Your task to perform on an android device: turn off improve location accuracy Image 0: 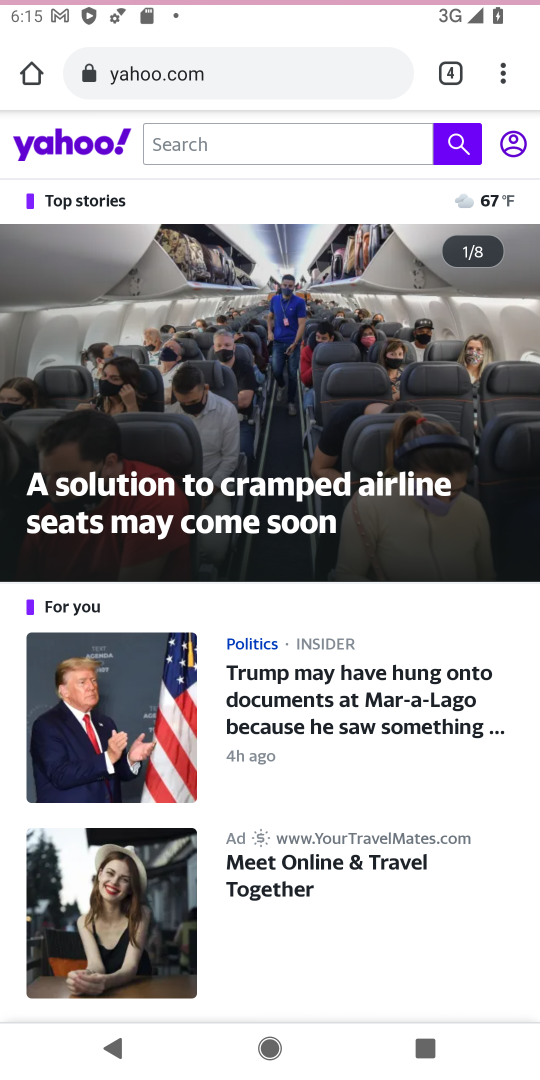
Step 0: press home button
Your task to perform on an android device: turn off improve location accuracy Image 1: 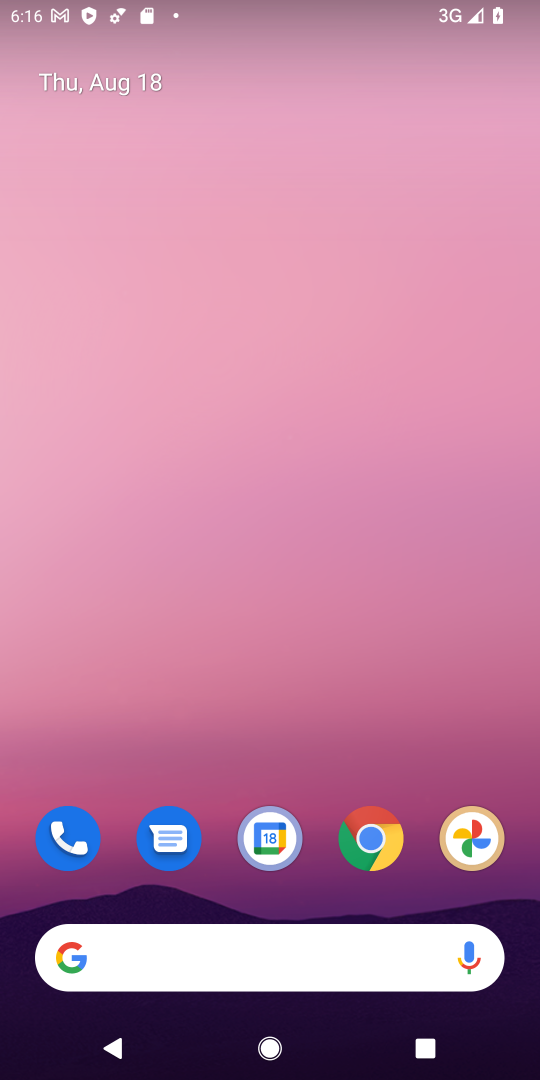
Step 1: drag from (342, 838) to (336, 276)
Your task to perform on an android device: turn off improve location accuracy Image 2: 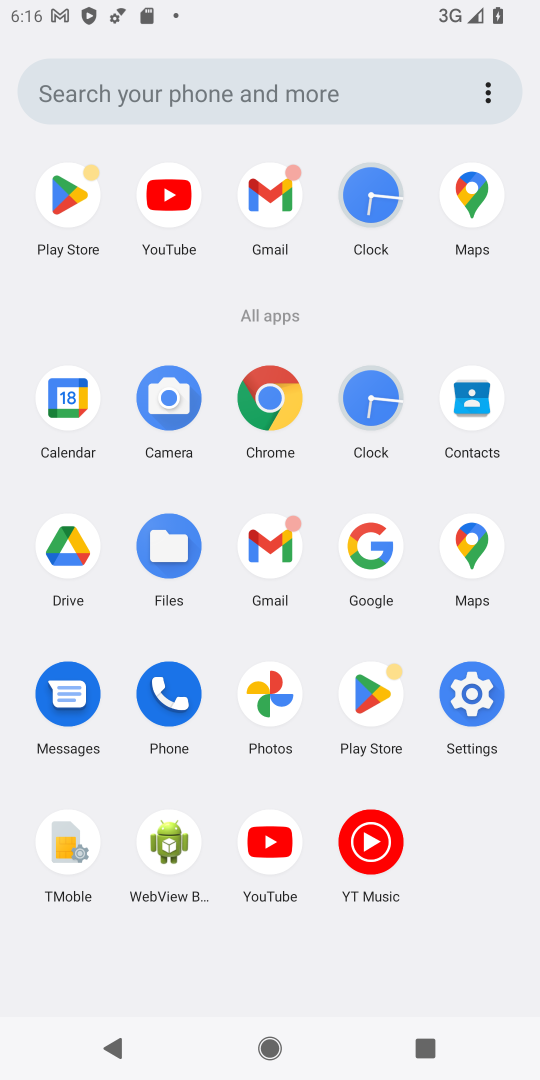
Step 2: click (466, 715)
Your task to perform on an android device: turn off improve location accuracy Image 3: 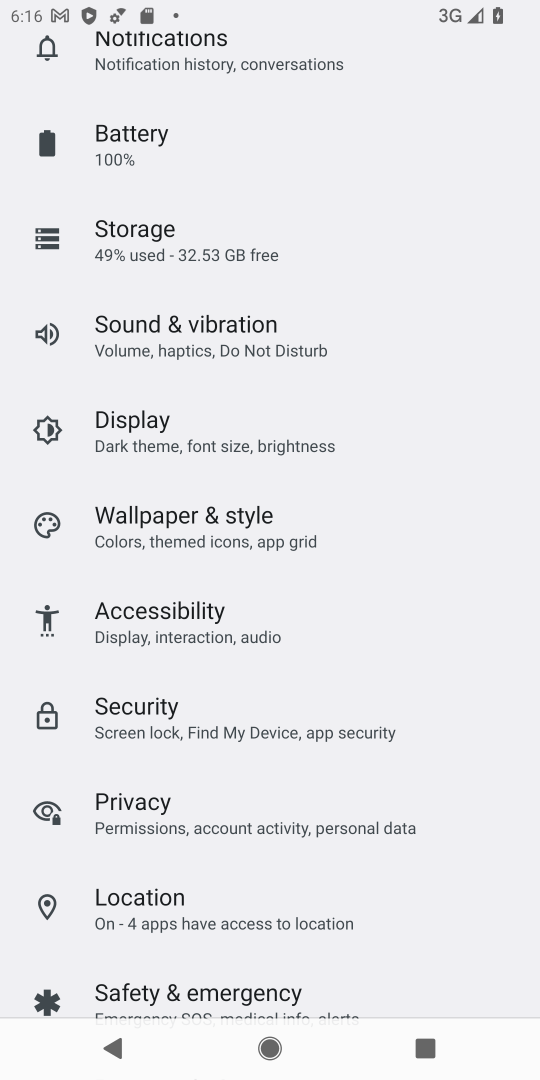
Step 3: click (144, 908)
Your task to perform on an android device: turn off improve location accuracy Image 4: 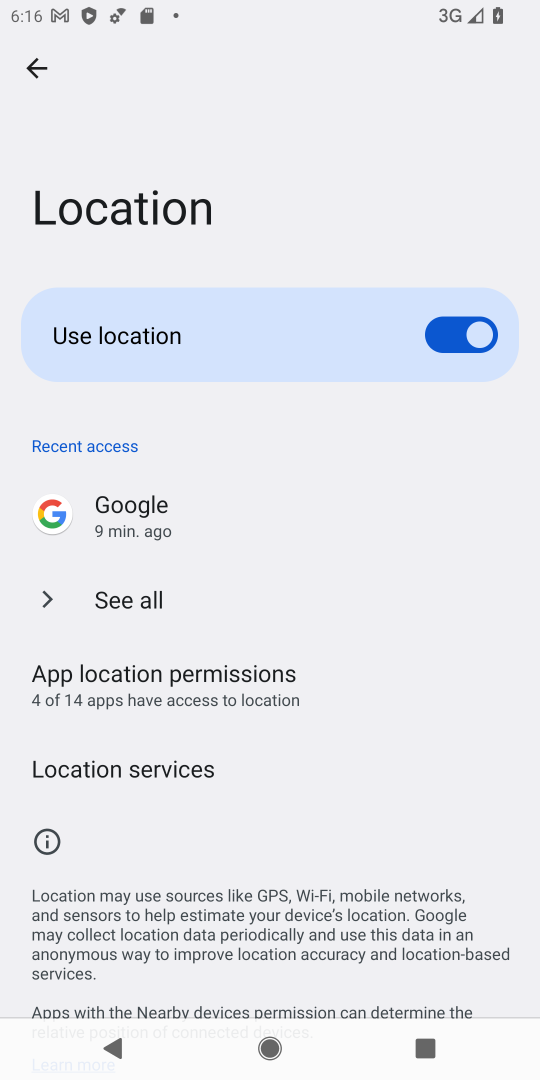
Step 4: click (121, 768)
Your task to perform on an android device: turn off improve location accuracy Image 5: 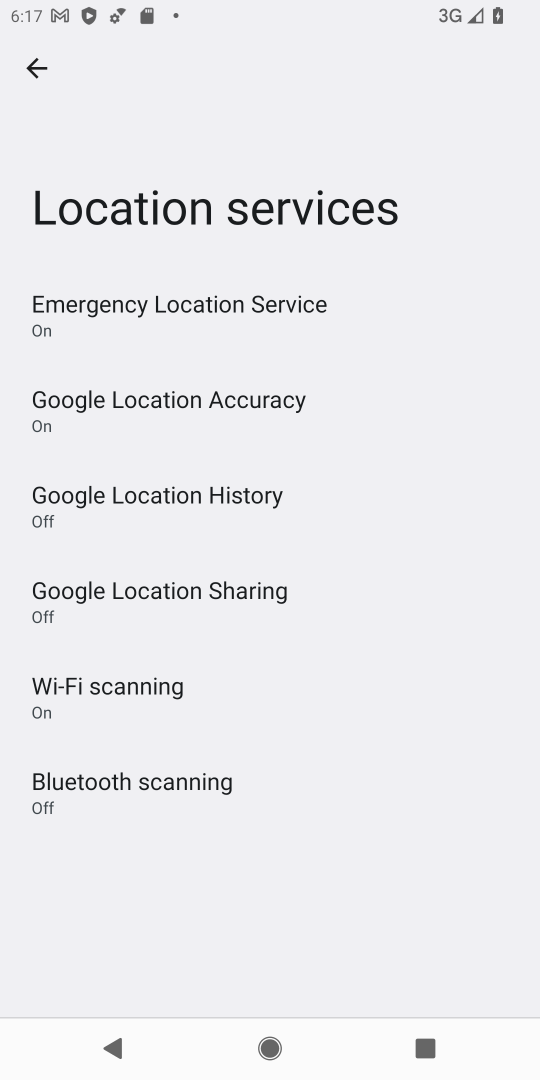
Step 5: click (227, 407)
Your task to perform on an android device: turn off improve location accuracy Image 6: 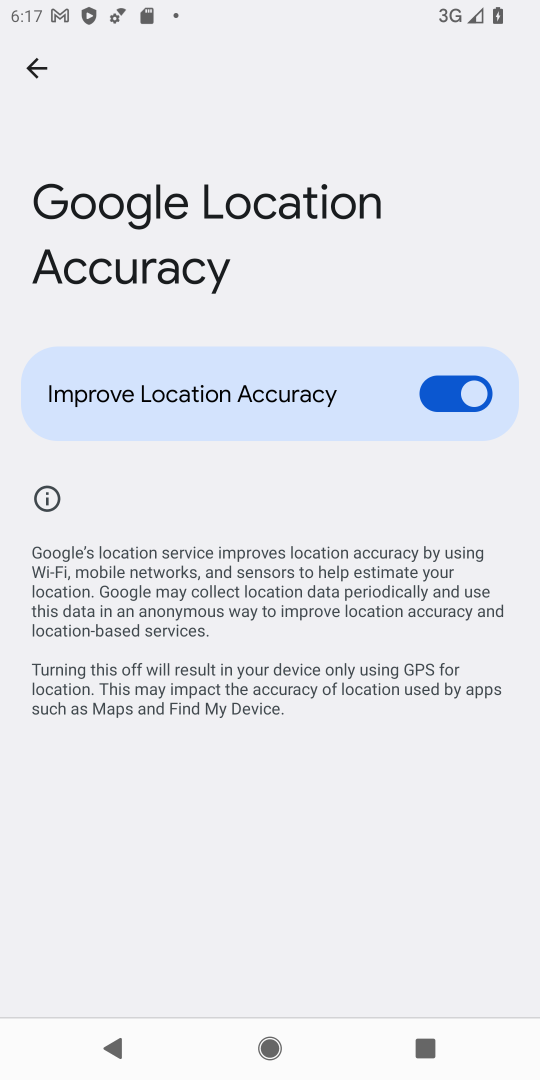
Step 6: click (472, 393)
Your task to perform on an android device: turn off improve location accuracy Image 7: 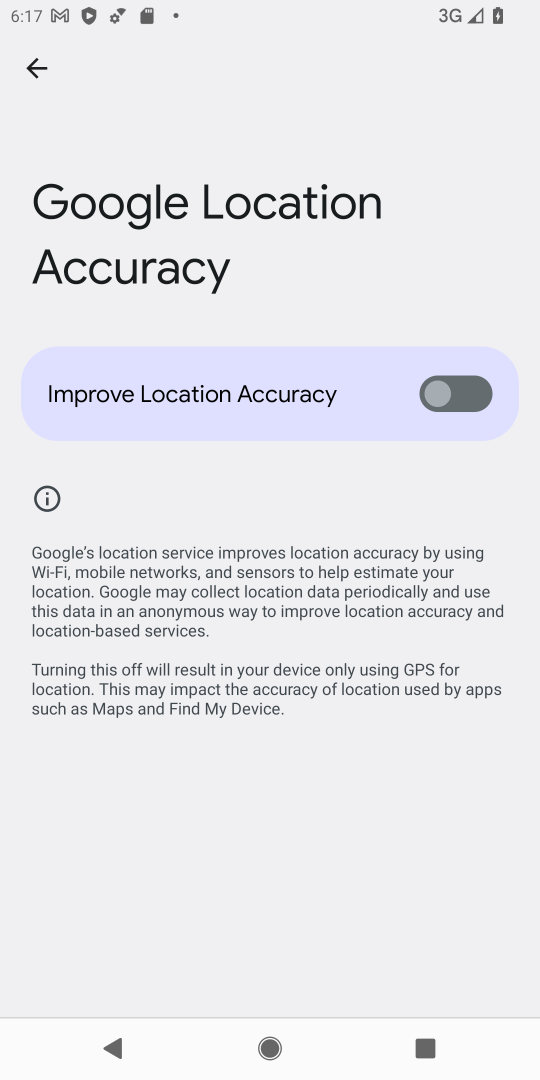
Step 7: task complete